Your task to perform on an android device: Turn off the flashlight Image 0: 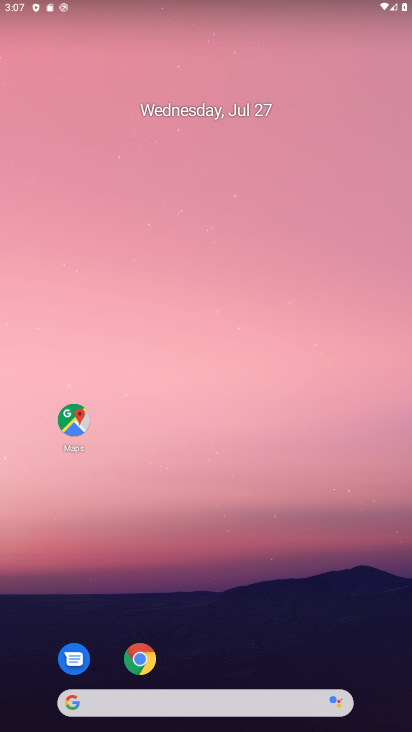
Step 0: drag from (159, 0) to (215, 569)
Your task to perform on an android device: Turn off the flashlight Image 1: 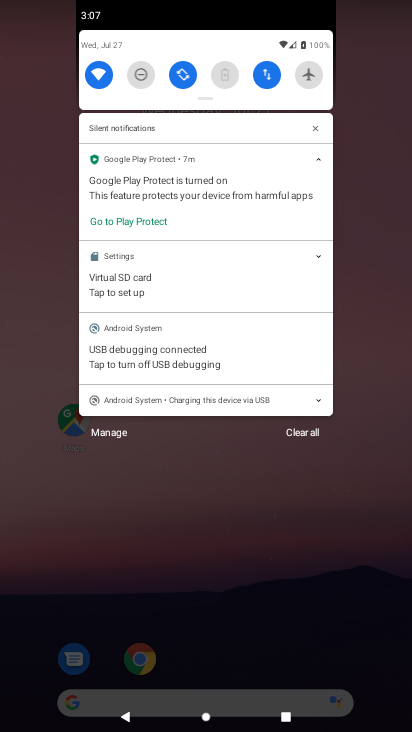
Step 1: task complete